Your task to perform on an android device: Go to Yahoo.com Image 0: 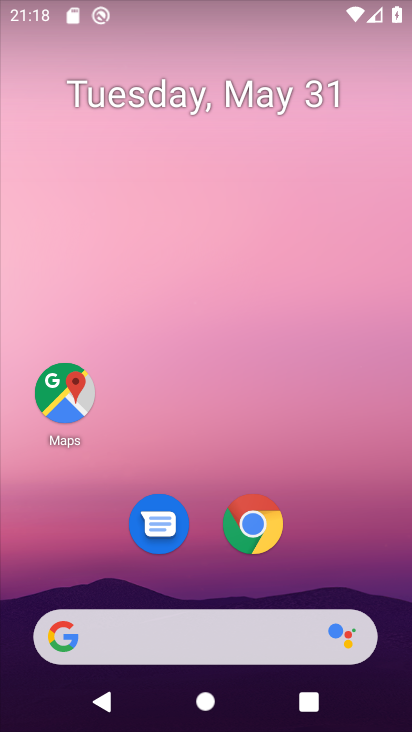
Step 0: click (280, 640)
Your task to perform on an android device: Go to Yahoo.com Image 1: 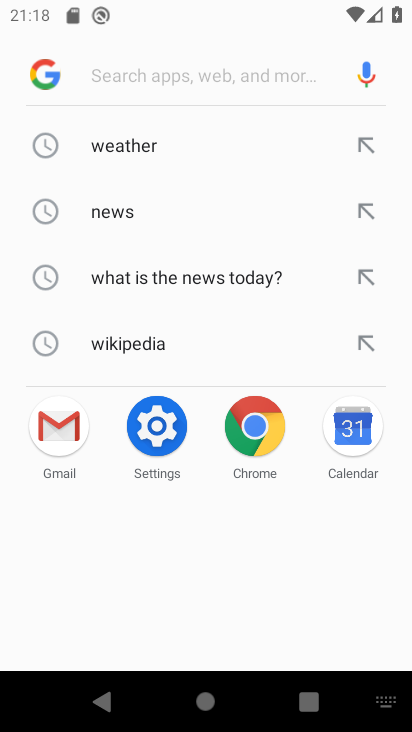
Step 1: type "yahoo.com"
Your task to perform on an android device: Go to Yahoo.com Image 2: 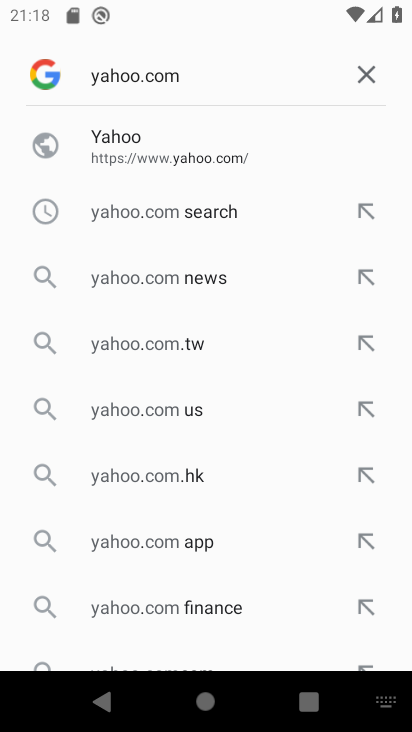
Step 2: click (145, 159)
Your task to perform on an android device: Go to Yahoo.com Image 3: 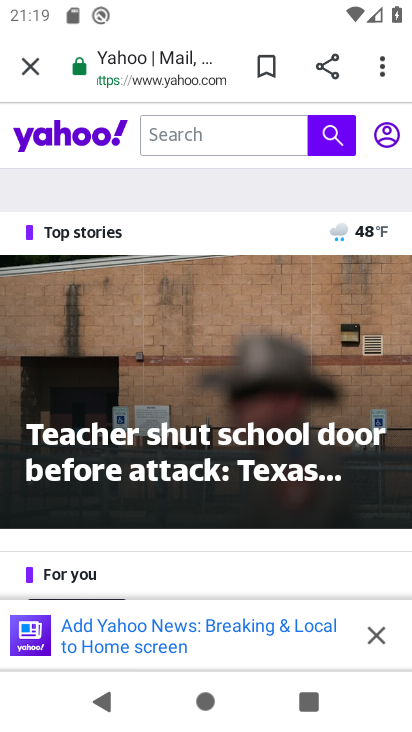
Step 3: task complete